Your task to perform on an android device: What's the weather? Image 0: 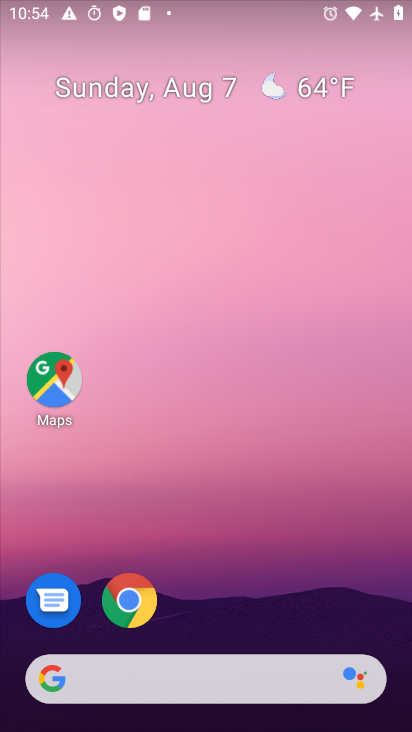
Step 0: drag from (240, 597) to (245, 99)
Your task to perform on an android device: What's the weather? Image 1: 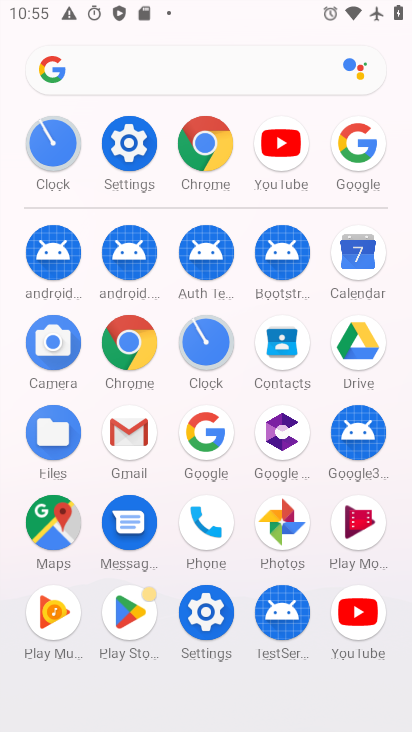
Step 1: click (216, 455)
Your task to perform on an android device: What's the weather? Image 2: 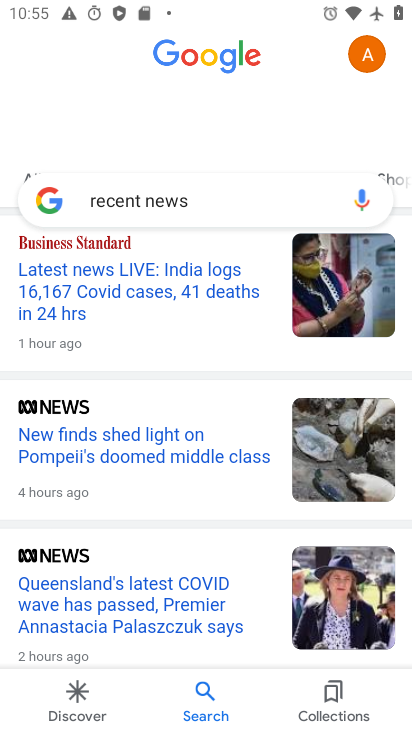
Step 2: press back button
Your task to perform on an android device: What's the weather? Image 3: 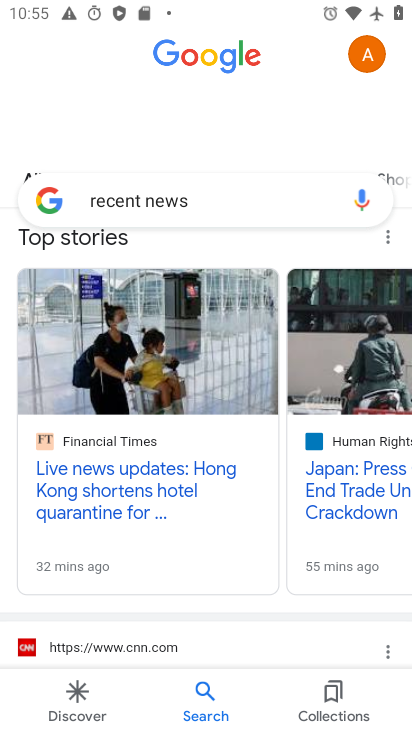
Step 3: click (210, 203)
Your task to perform on an android device: What's the weather? Image 4: 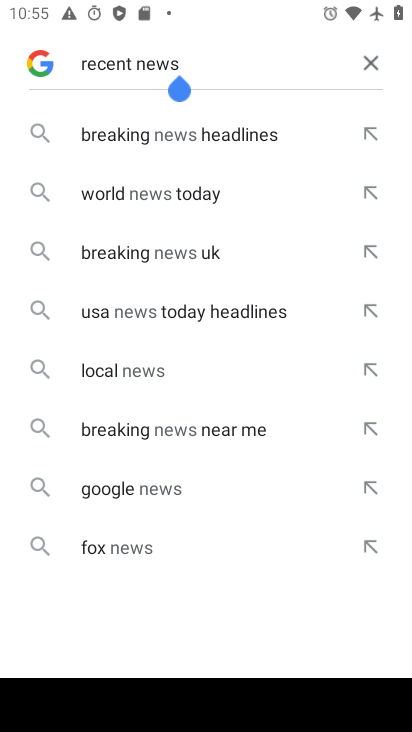
Step 4: click (364, 58)
Your task to perform on an android device: What's the weather? Image 5: 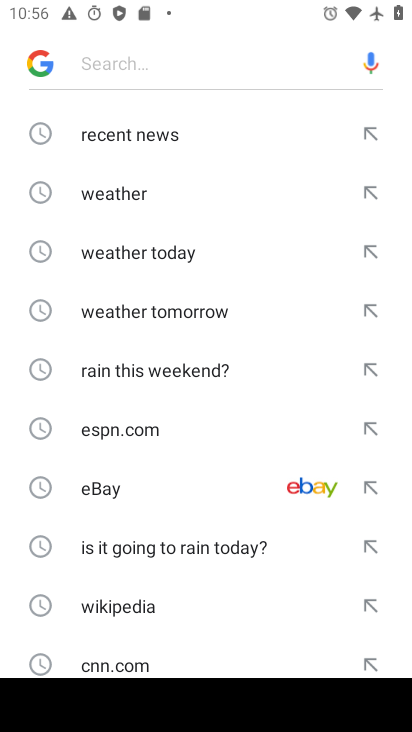
Step 5: click (118, 192)
Your task to perform on an android device: What's the weather? Image 6: 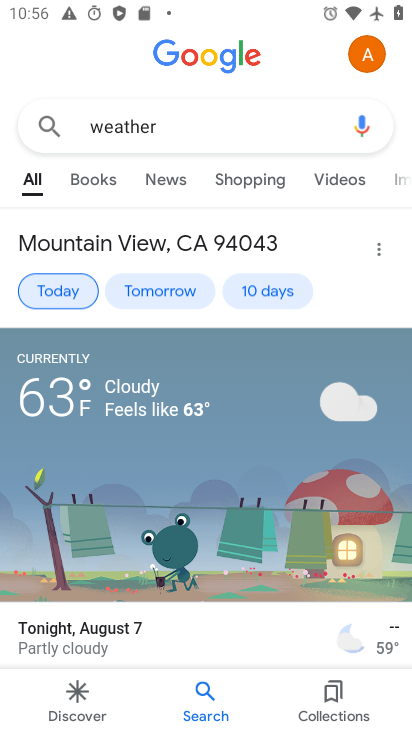
Step 6: task complete